Your task to perform on an android device: turn on translation in the chrome app Image 0: 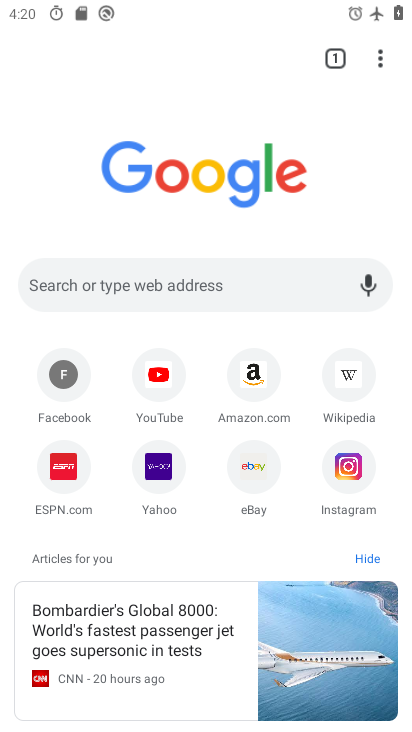
Step 0: press home button
Your task to perform on an android device: turn on translation in the chrome app Image 1: 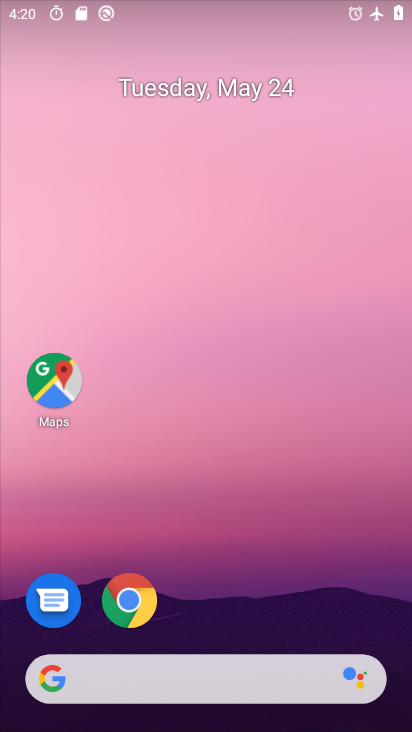
Step 1: drag from (224, 657) to (292, 20)
Your task to perform on an android device: turn on translation in the chrome app Image 2: 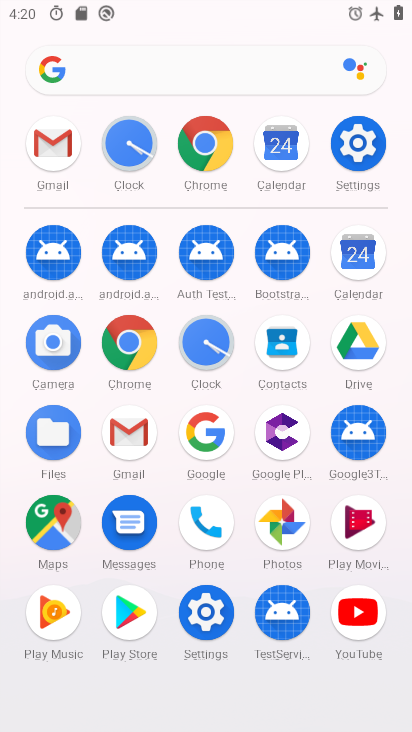
Step 2: click (133, 353)
Your task to perform on an android device: turn on translation in the chrome app Image 3: 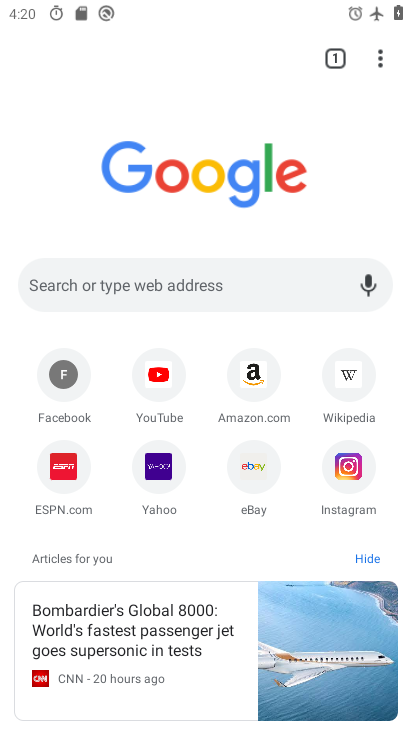
Step 3: drag from (382, 57) to (180, 515)
Your task to perform on an android device: turn on translation in the chrome app Image 4: 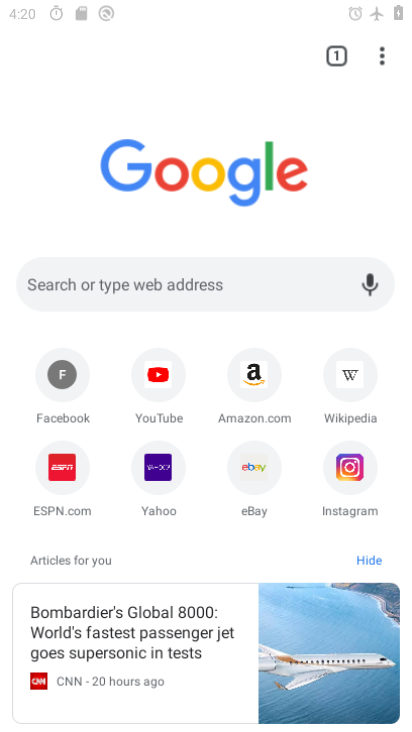
Step 4: click (166, 499)
Your task to perform on an android device: turn on translation in the chrome app Image 5: 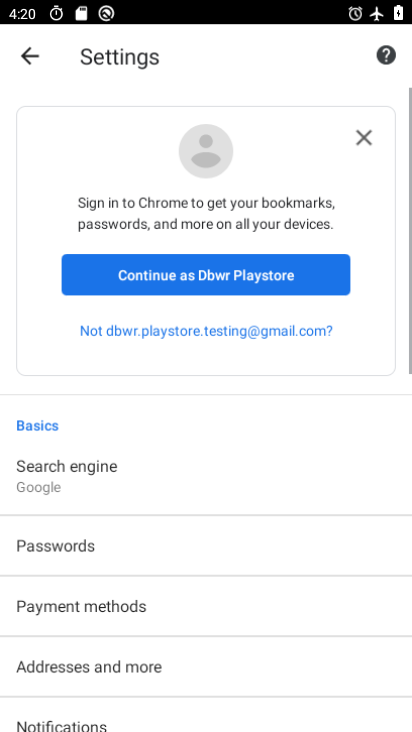
Step 5: drag from (240, 650) to (252, 269)
Your task to perform on an android device: turn on translation in the chrome app Image 6: 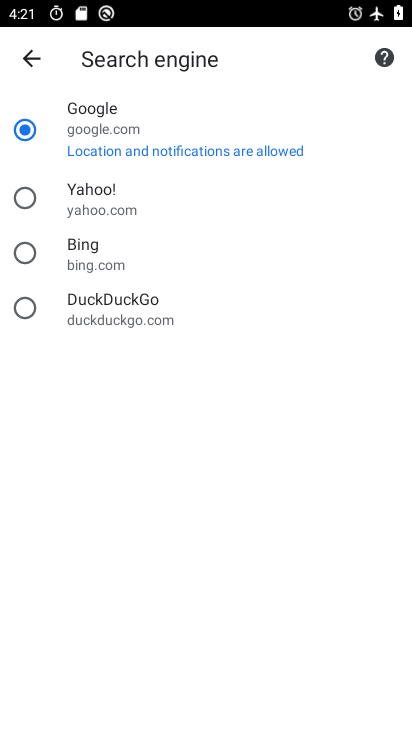
Step 6: press back button
Your task to perform on an android device: turn on translation in the chrome app Image 7: 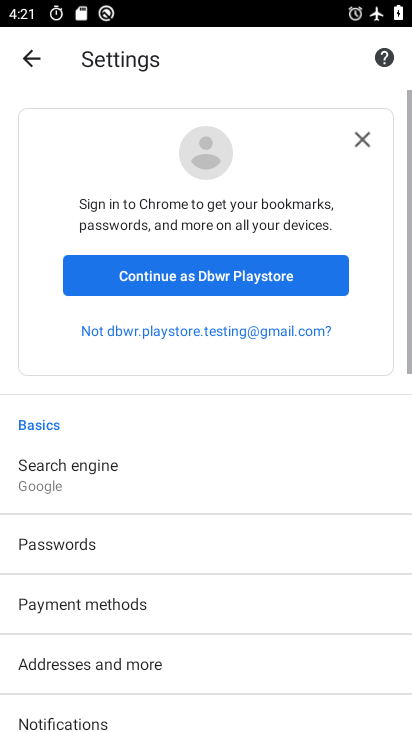
Step 7: drag from (166, 680) to (128, 45)
Your task to perform on an android device: turn on translation in the chrome app Image 8: 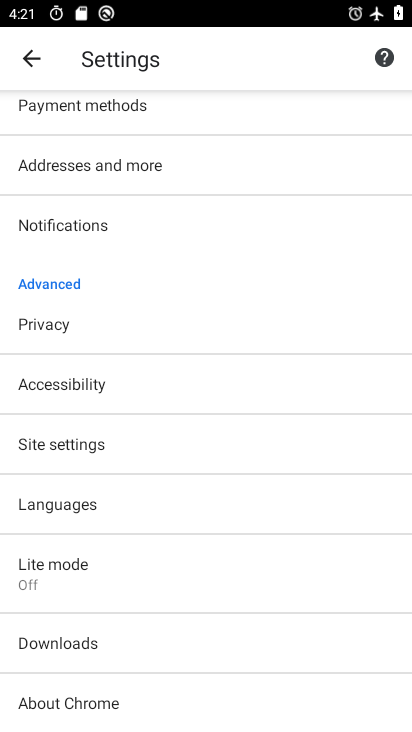
Step 8: click (78, 514)
Your task to perform on an android device: turn on translation in the chrome app Image 9: 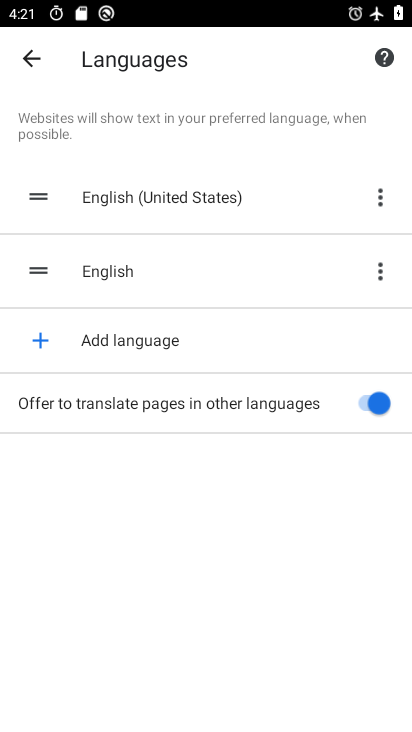
Step 9: task complete